Your task to perform on an android device: change keyboard looks Image 0: 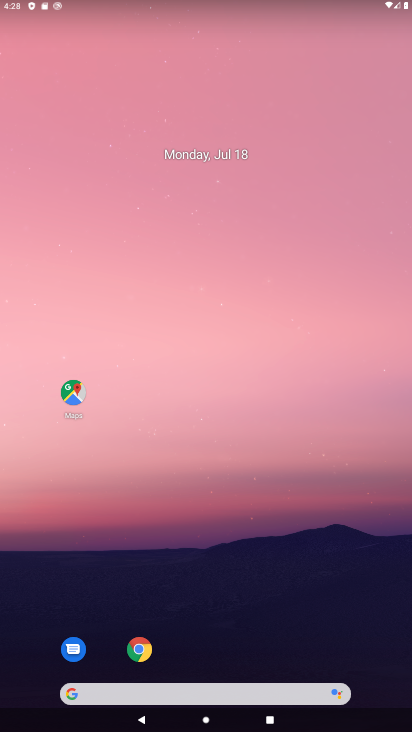
Step 0: drag from (186, 533) to (269, 1)
Your task to perform on an android device: change keyboard looks Image 1: 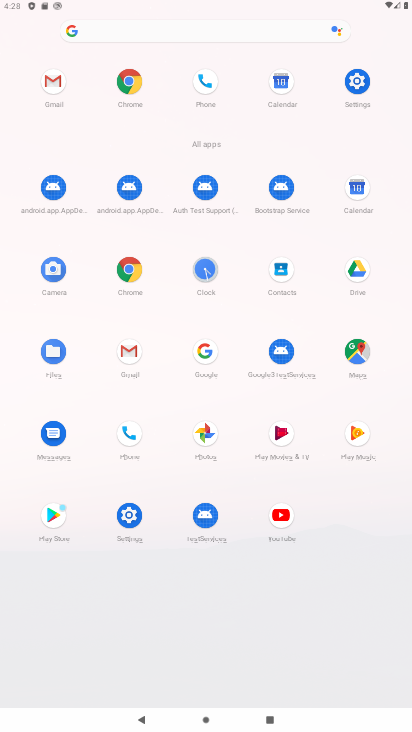
Step 1: click (127, 518)
Your task to perform on an android device: change keyboard looks Image 2: 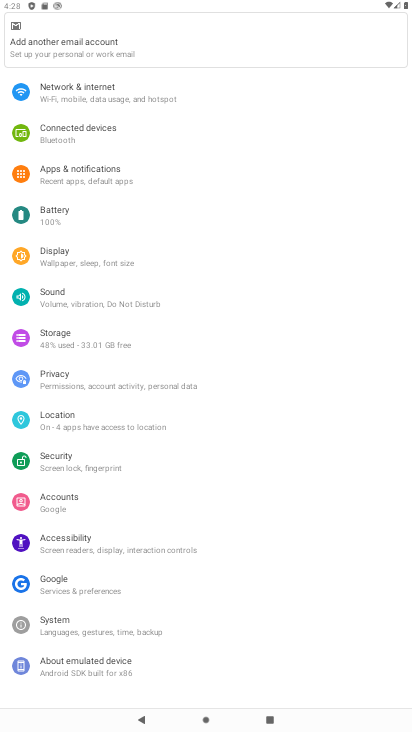
Step 2: click (62, 628)
Your task to perform on an android device: change keyboard looks Image 3: 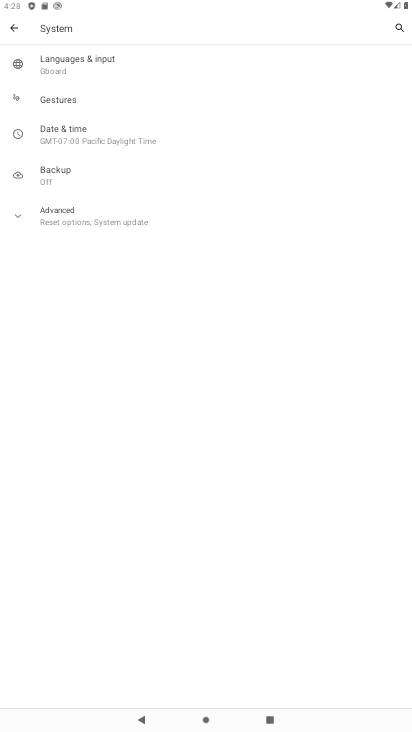
Step 3: click (98, 71)
Your task to perform on an android device: change keyboard looks Image 4: 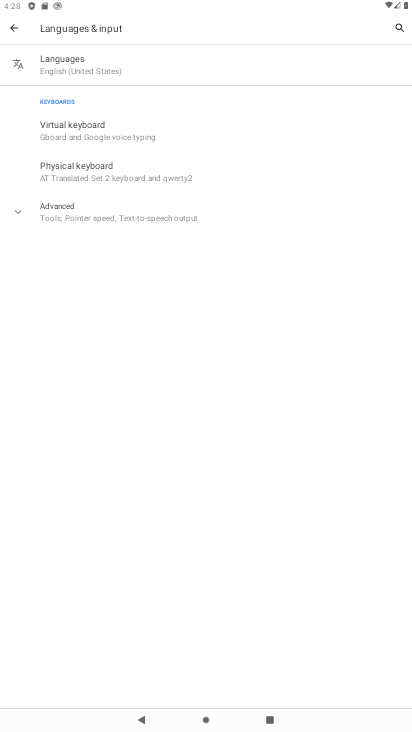
Step 4: click (96, 128)
Your task to perform on an android device: change keyboard looks Image 5: 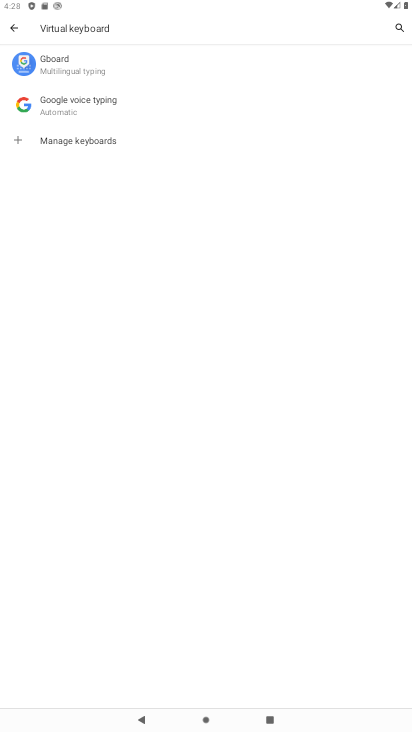
Step 5: click (69, 68)
Your task to perform on an android device: change keyboard looks Image 6: 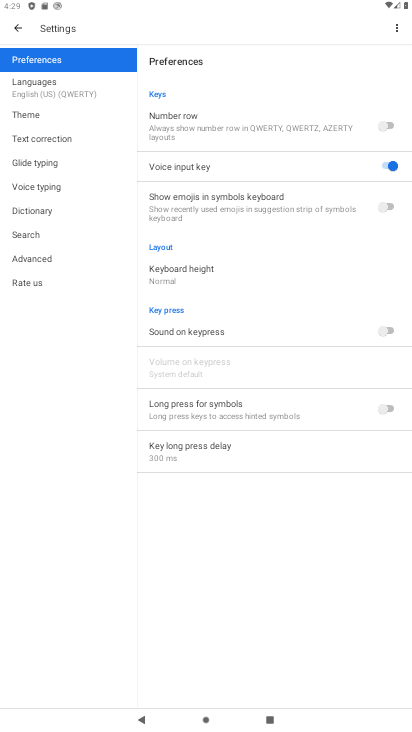
Step 6: click (57, 122)
Your task to perform on an android device: change keyboard looks Image 7: 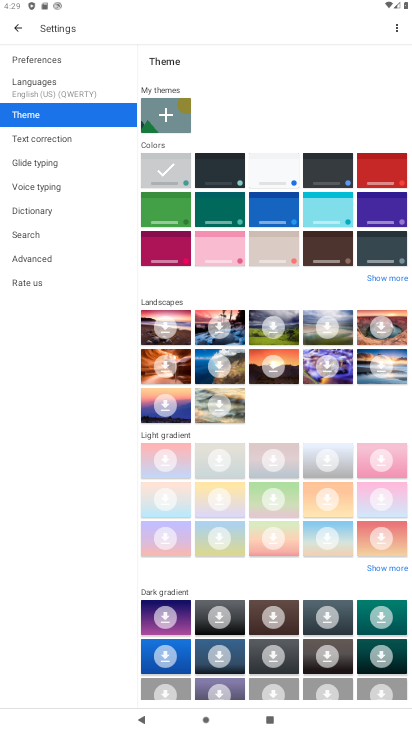
Step 7: click (224, 171)
Your task to perform on an android device: change keyboard looks Image 8: 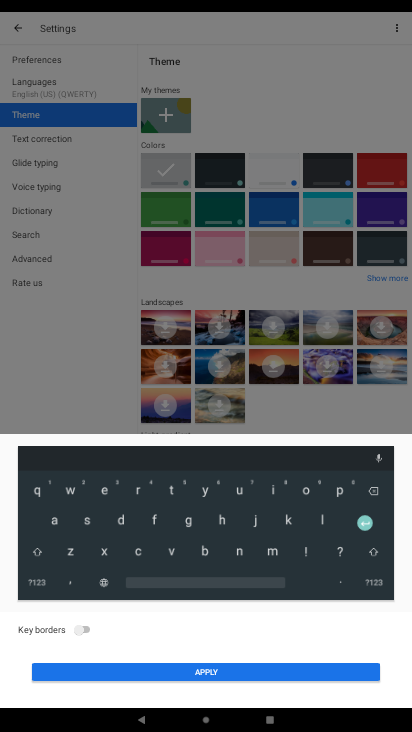
Step 8: click (236, 672)
Your task to perform on an android device: change keyboard looks Image 9: 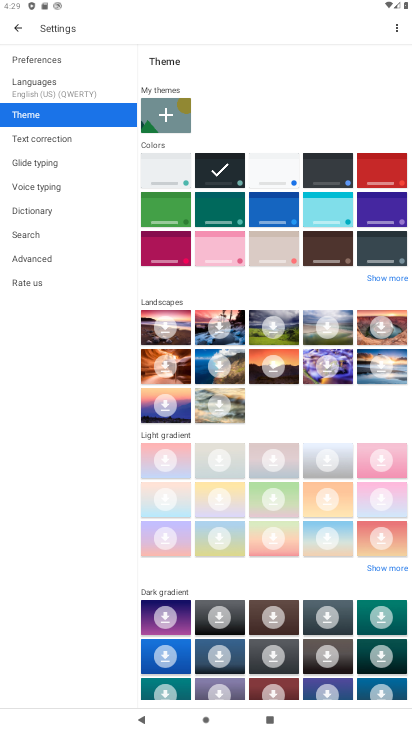
Step 9: task complete